Your task to perform on an android device: see tabs open on other devices in the chrome app Image 0: 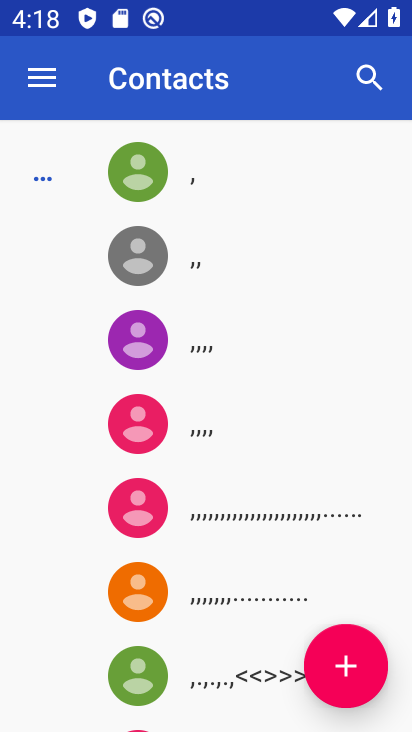
Step 0: press home button
Your task to perform on an android device: see tabs open on other devices in the chrome app Image 1: 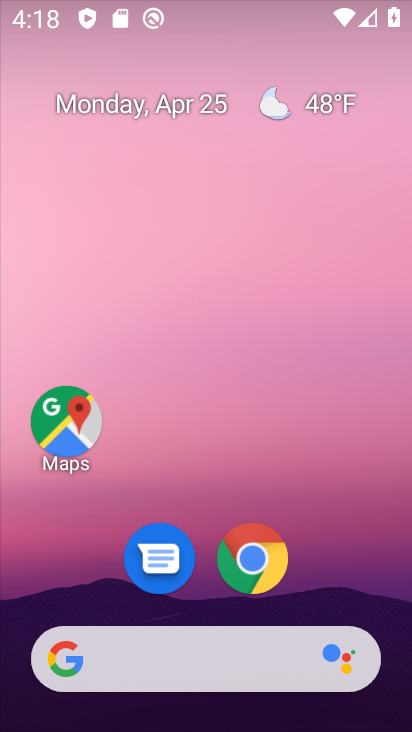
Step 1: drag from (342, 520) to (352, 5)
Your task to perform on an android device: see tabs open on other devices in the chrome app Image 2: 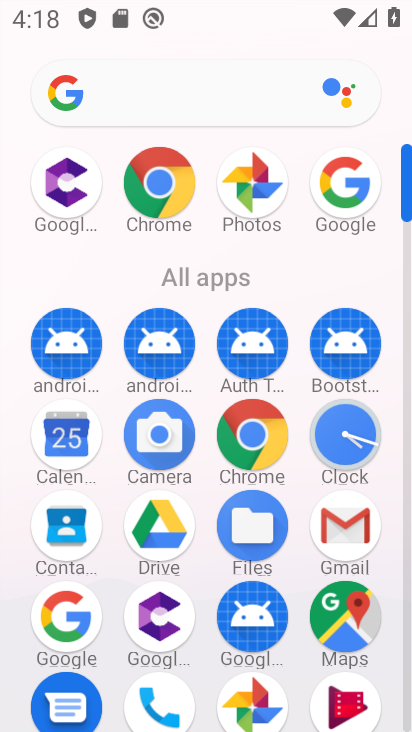
Step 2: click (174, 192)
Your task to perform on an android device: see tabs open on other devices in the chrome app Image 3: 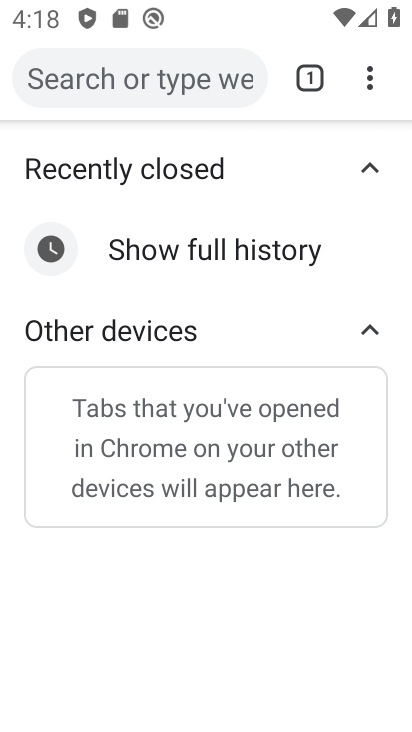
Step 3: task complete